Your task to perform on an android device: Open network settings Image 0: 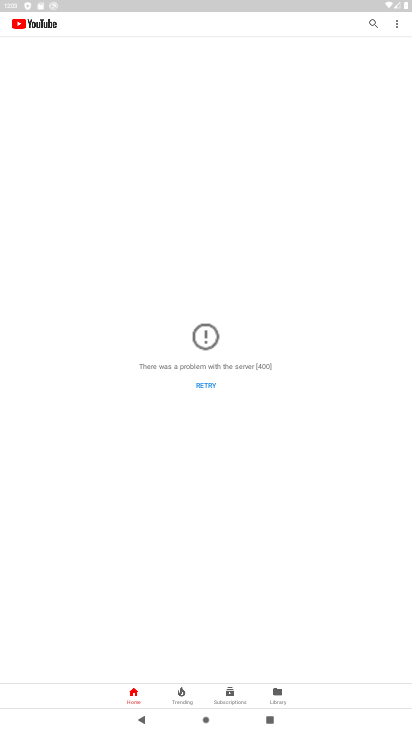
Step 0: press home button
Your task to perform on an android device: Open network settings Image 1: 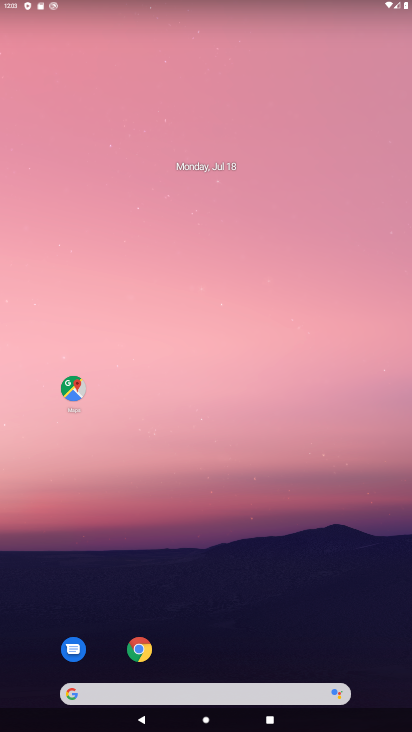
Step 1: drag from (162, 683) to (166, 246)
Your task to perform on an android device: Open network settings Image 2: 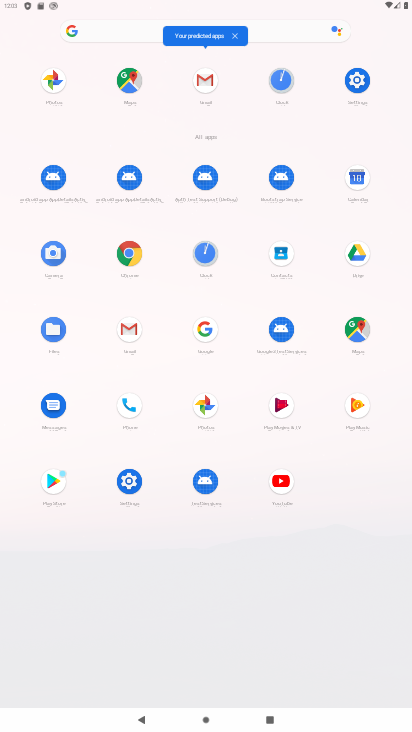
Step 2: click (355, 86)
Your task to perform on an android device: Open network settings Image 3: 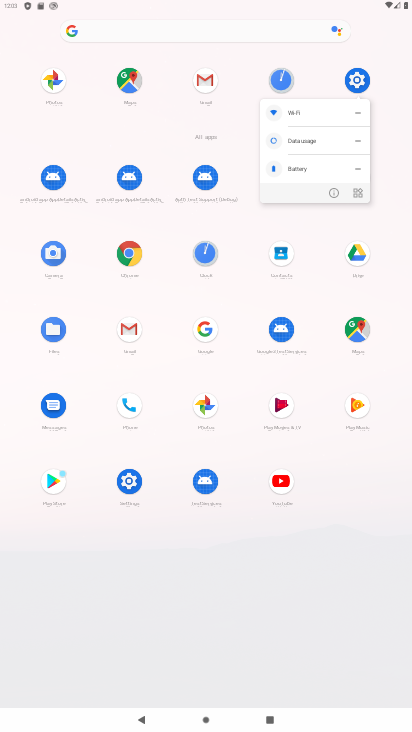
Step 3: click (359, 80)
Your task to perform on an android device: Open network settings Image 4: 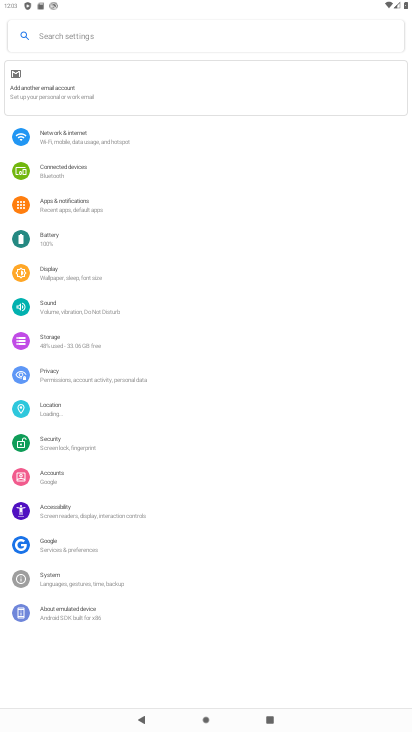
Step 4: click (77, 138)
Your task to perform on an android device: Open network settings Image 5: 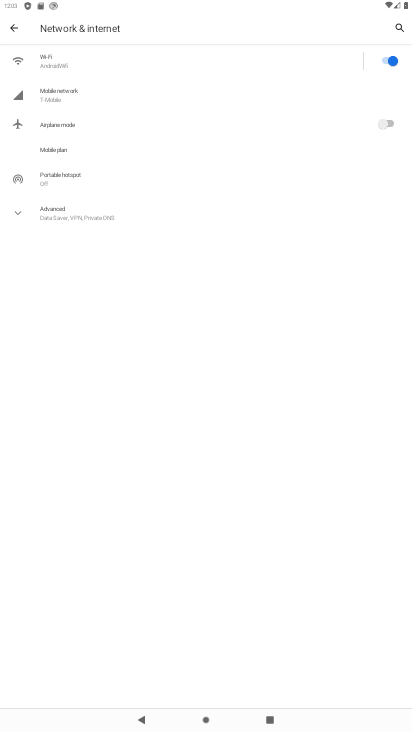
Step 5: click (62, 208)
Your task to perform on an android device: Open network settings Image 6: 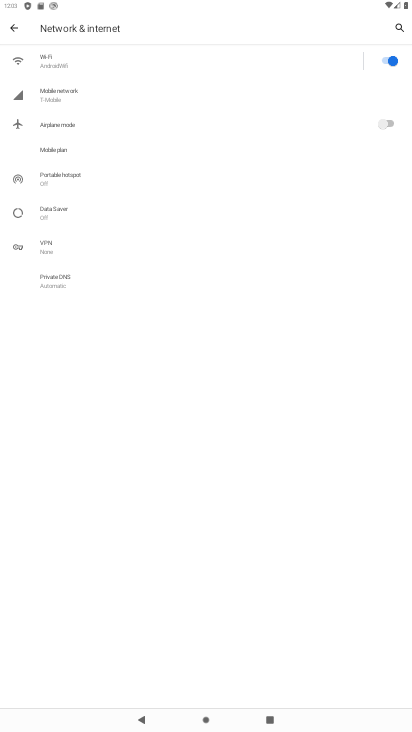
Step 6: task complete